Your task to perform on an android device: Go to Reddit.com Image 0: 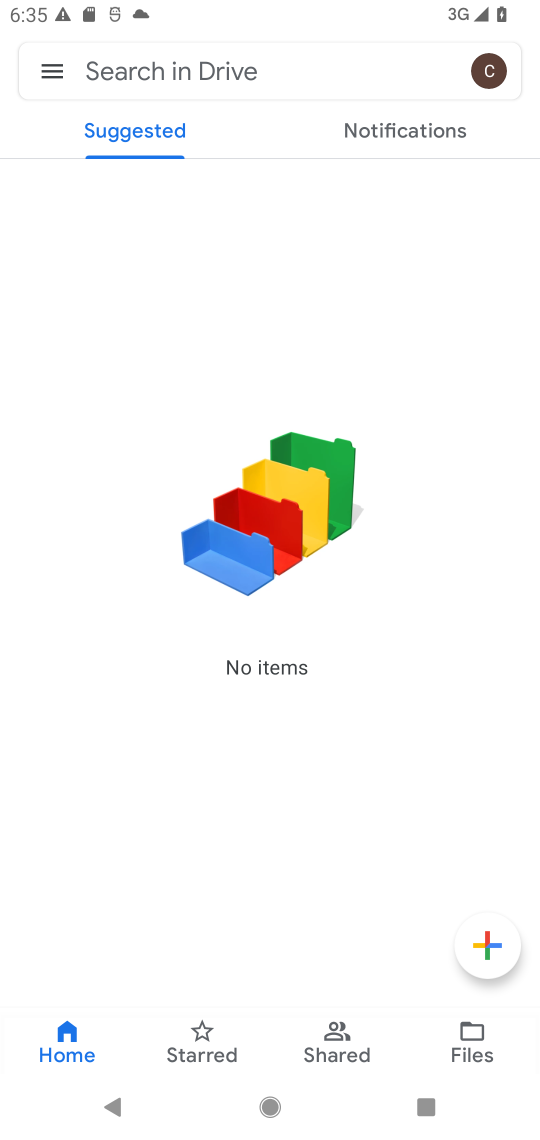
Step 0: press home button
Your task to perform on an android device: Go to Reddit.com Image 1: 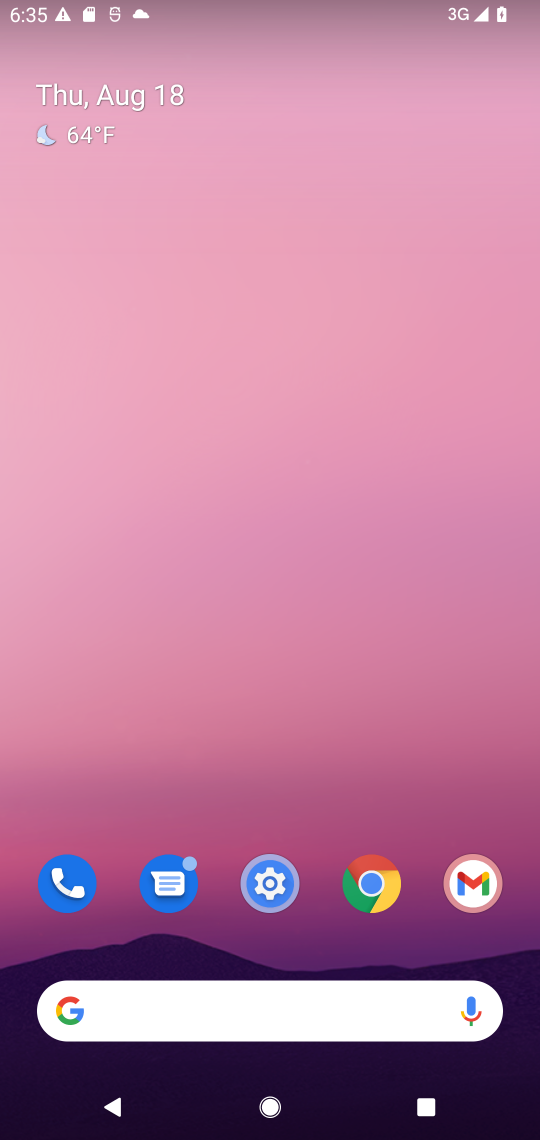
Step 1: click (167, 1002)
Your task to perform on an android device: Go to Reddit.com Image 2: 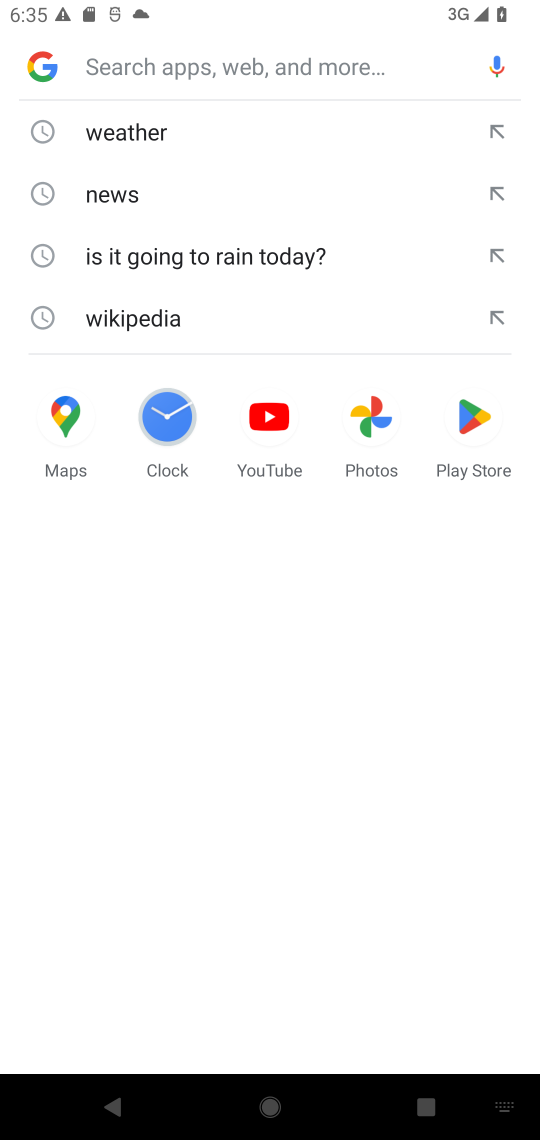
Step 2: type "Reddit.com"
Your task to perform on an android device: Go to Reddit.com Image 3: 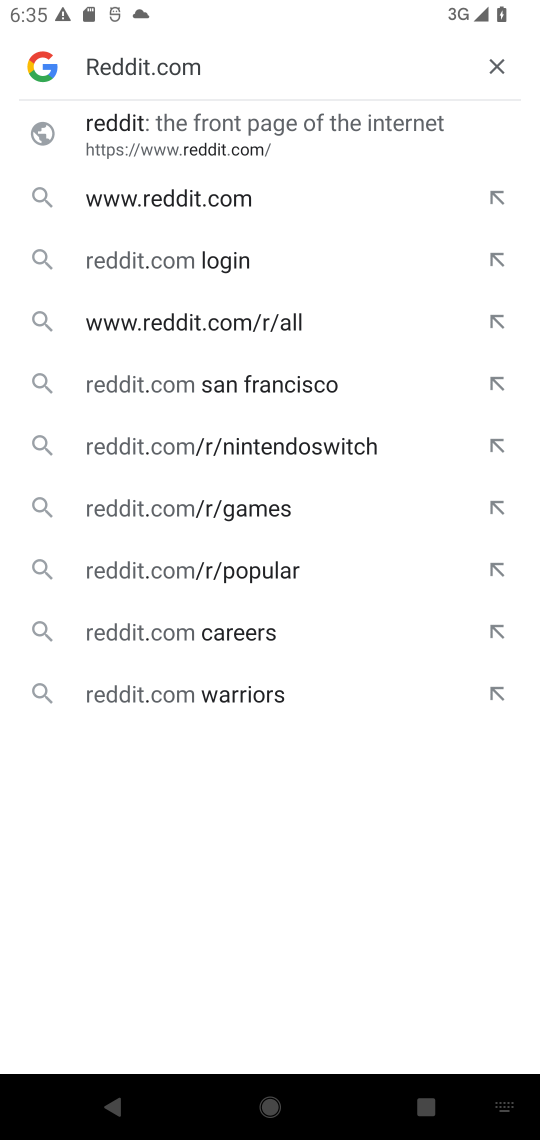
Step 3: click (217, 198)
Your task to perform on an android device: Go to Reddit.com Image 4: 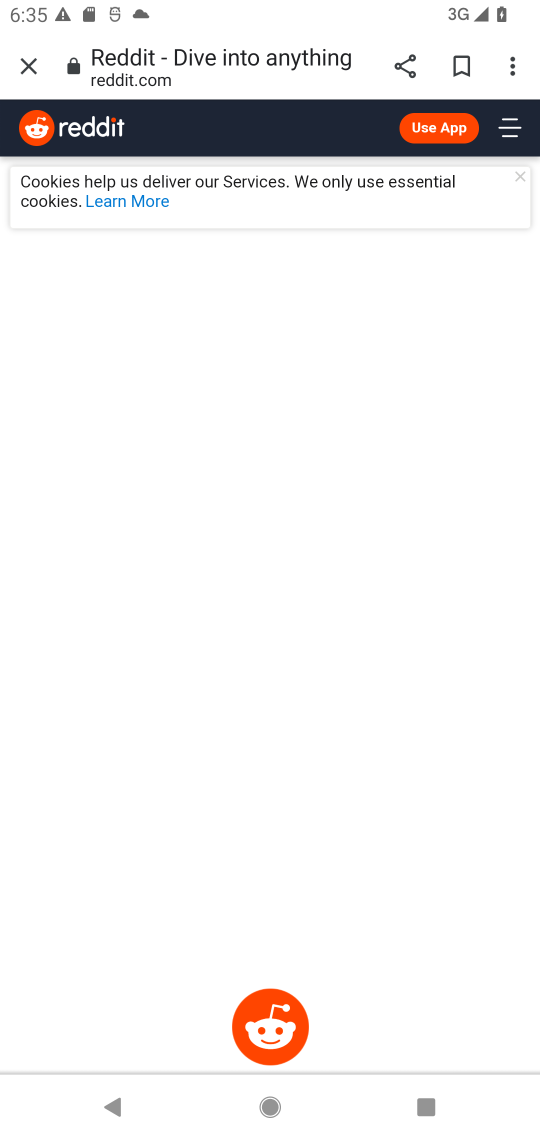
Step 4: task complete